Your task to perform on an android device: delete browsing data in the chrome app Image 0: 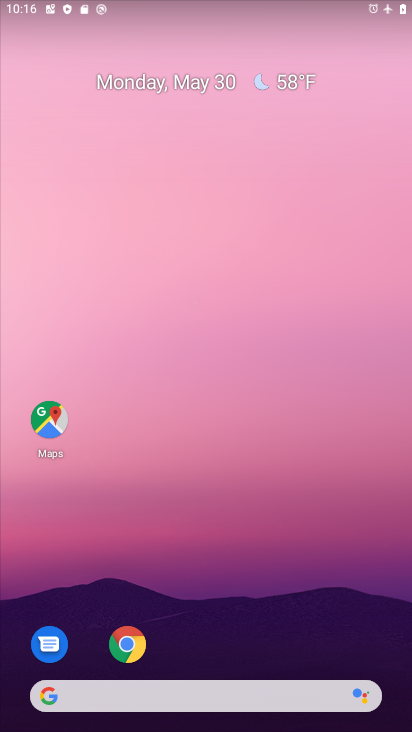
Step 0: click (128, 645)
Your task to perform on an android device: delete browsing data in the chrome app Image 1: 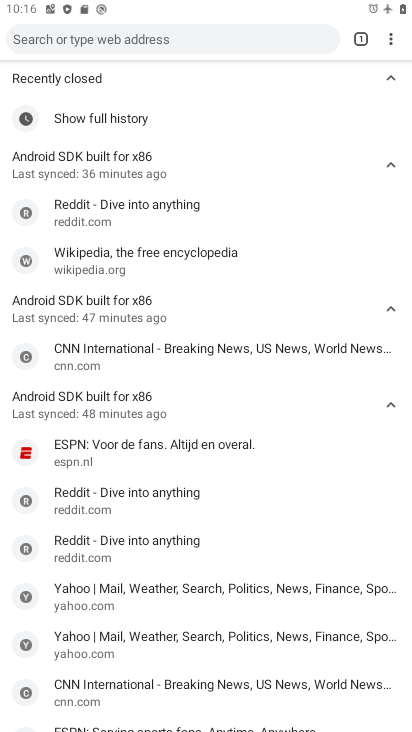
Step 1: click (391, 41)
Your task to perform on an android device: delete browsing data in the chrome app Image 2: 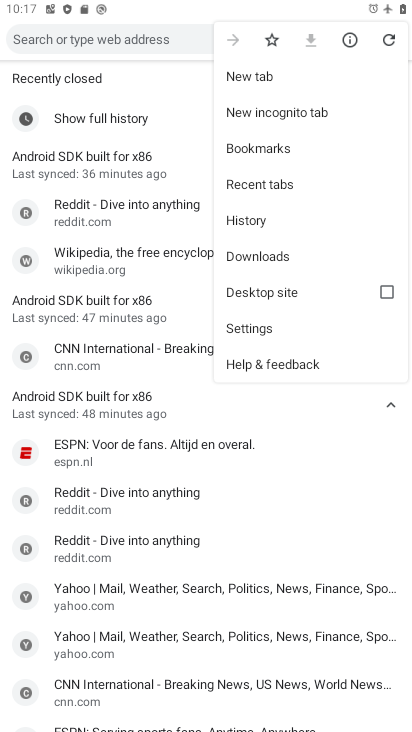
Step 2: click (248, 211)
Your task to perform on an android device: delete browsing data in the chrome app Image 3: 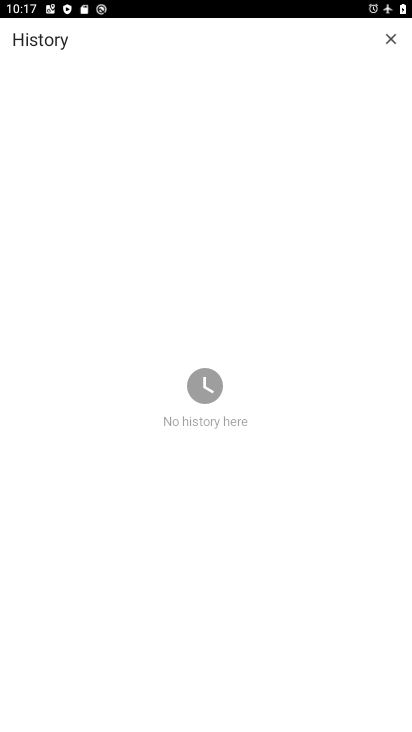
Step 3: task complete